Your task to perform on an android device: uninstall "Microsoft Excel" Image 0: 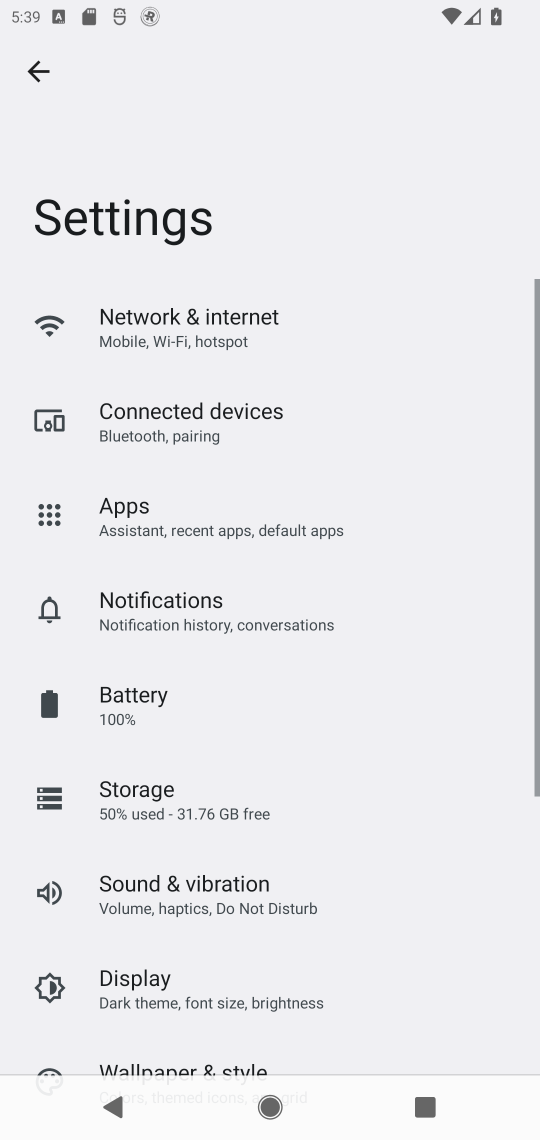
Step 0: press back button
Your task to perform on an android device: uninstall "Microsoft Excel" Image 1: 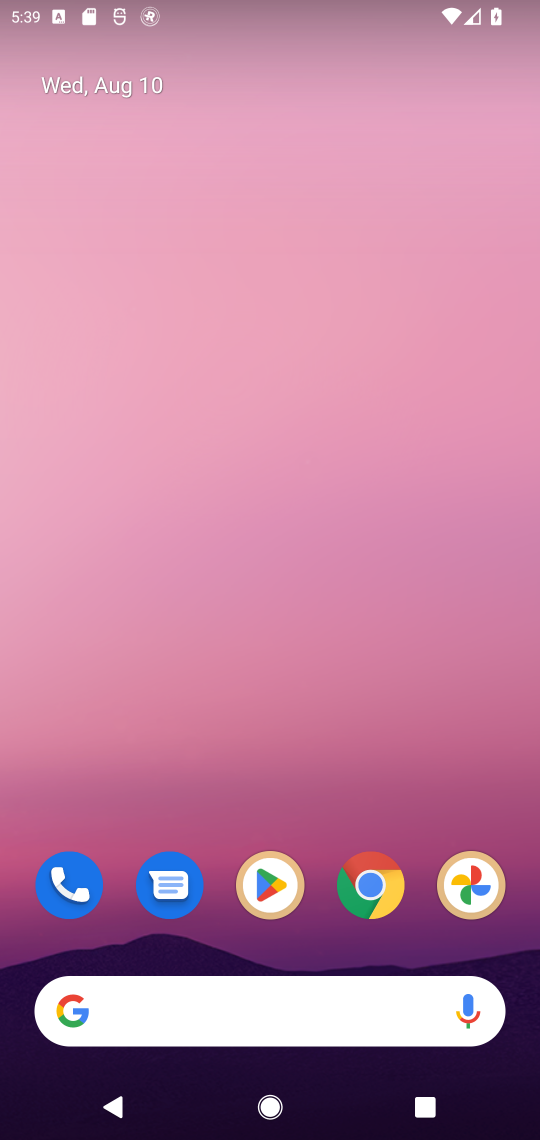
Step 1: click (271, 880)
Your task to perform on an android device: uninstall "Microsoft Excel" Image 2: 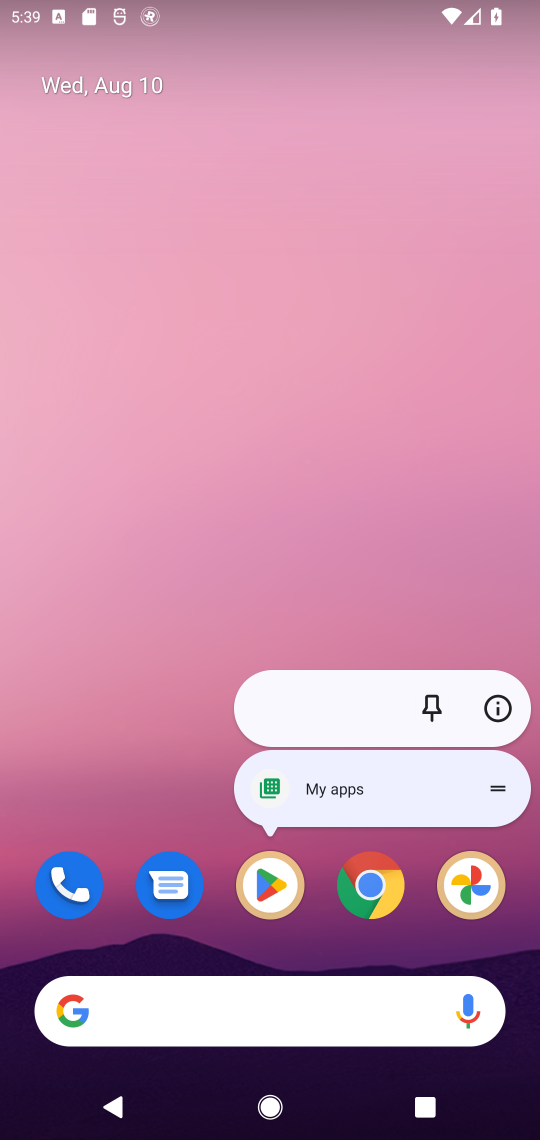
Step 2: click (271, 880)
Your task to perform on an android device: uninstall "Microsoft Excel" Image 3: 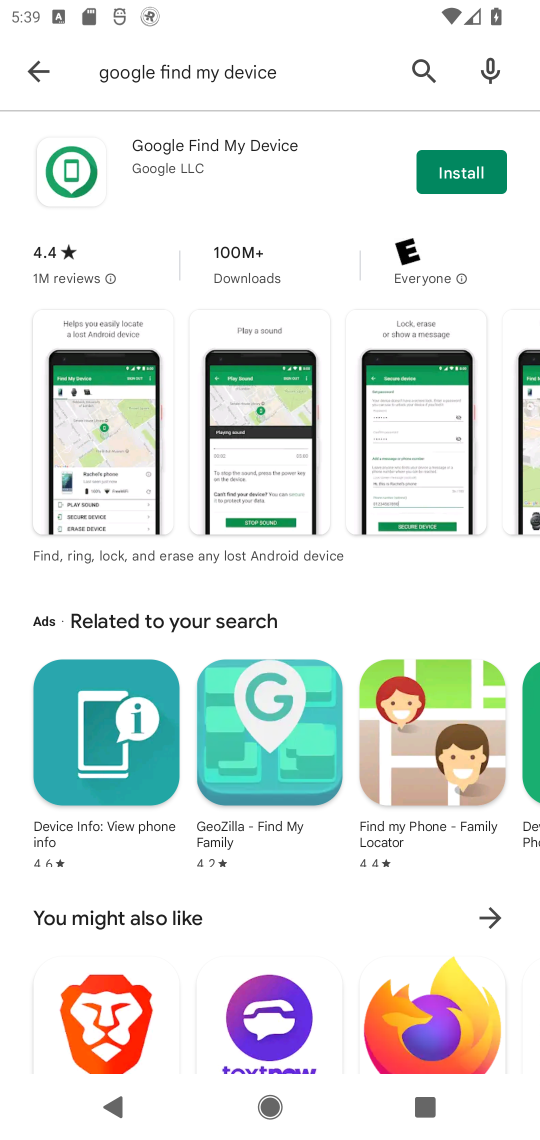
Step 3: click (425, 65)
Your task to perform on an android device: uninstall "Microsoft Excel" Image 4: 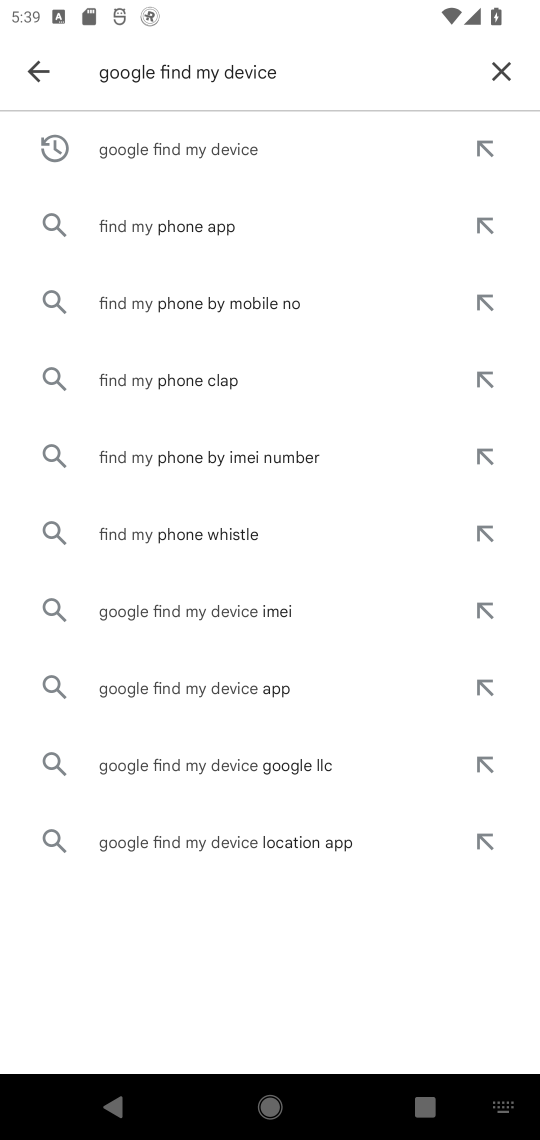
Step 4: click (493, 69)
Your task to perform on an android device: uninstall "Microsoft Excel" Image 5: 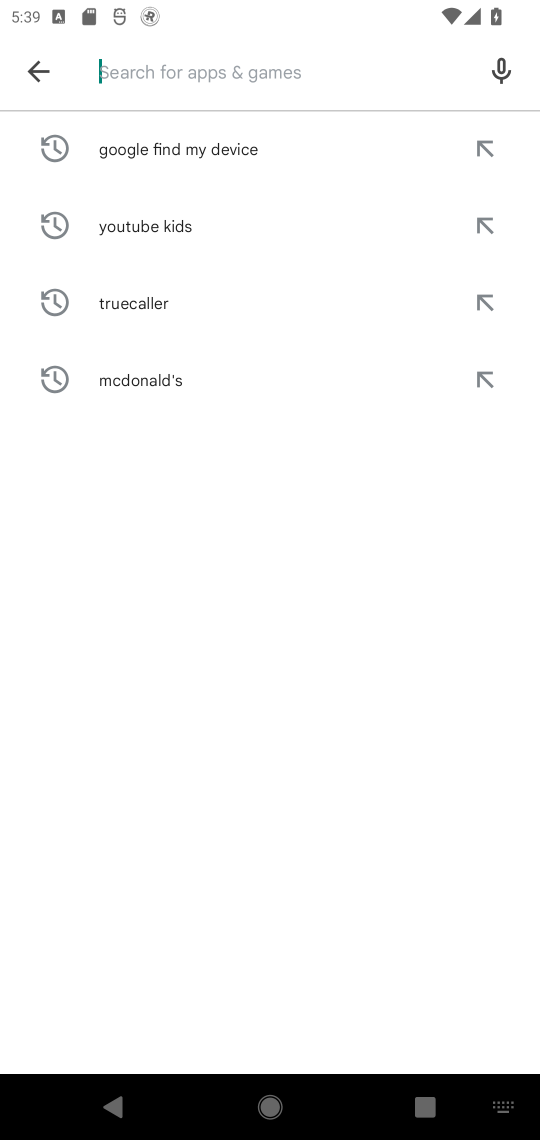
Step 5: click (269, 79)
Your task to perform on an android device: uninstall "Microsoft Excel" Image 6: 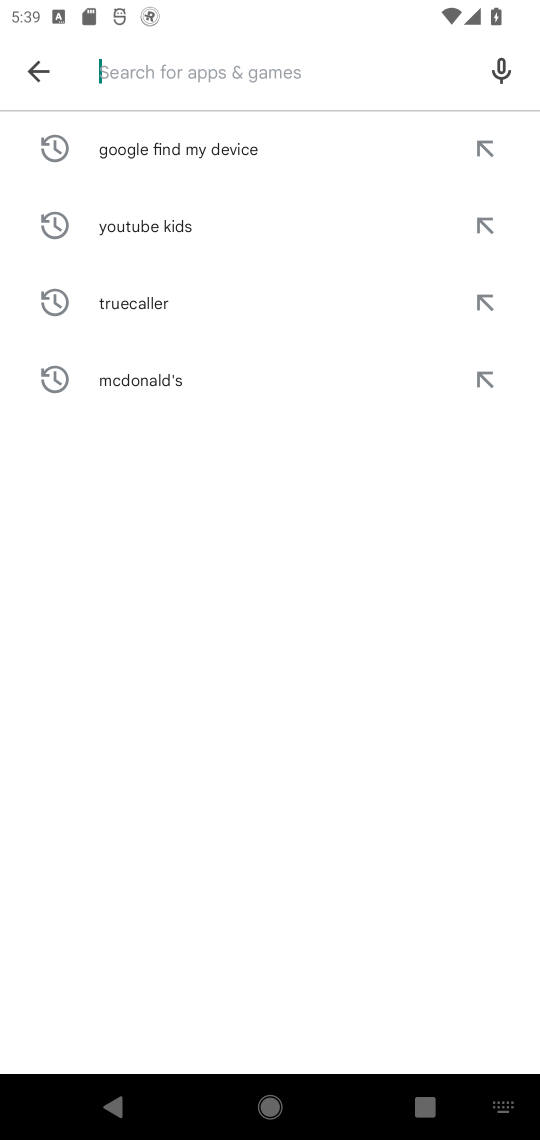
Step 6: click (173, 76)
Your task to perform on an android device: uninstall "Microsoft Excel" Image 7: 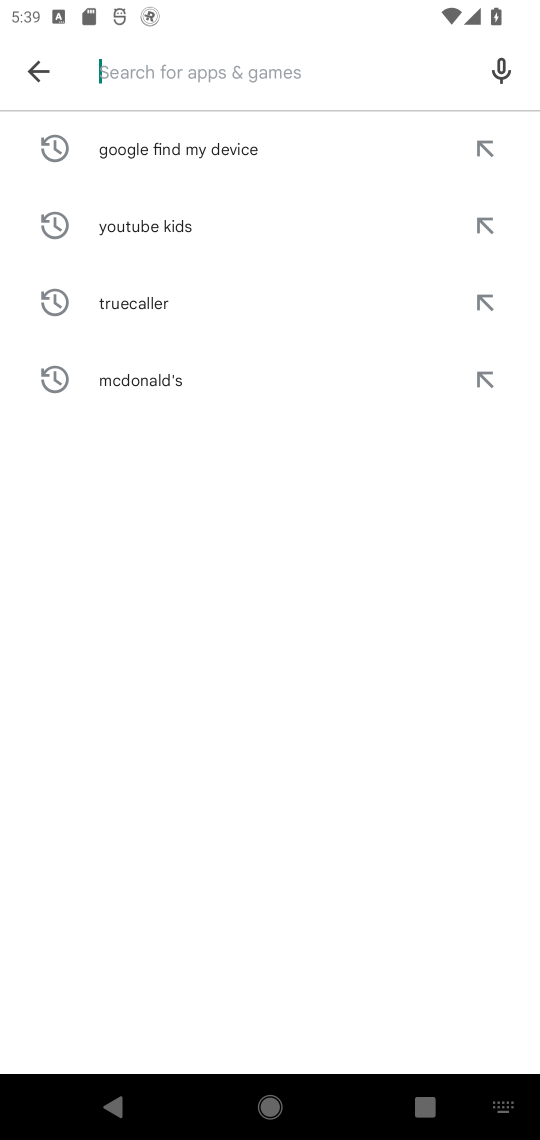
Step 7: type "Microsoft Excel"
Your task to perform on an android device: uninstall "Microsoft Excel" Image 8: 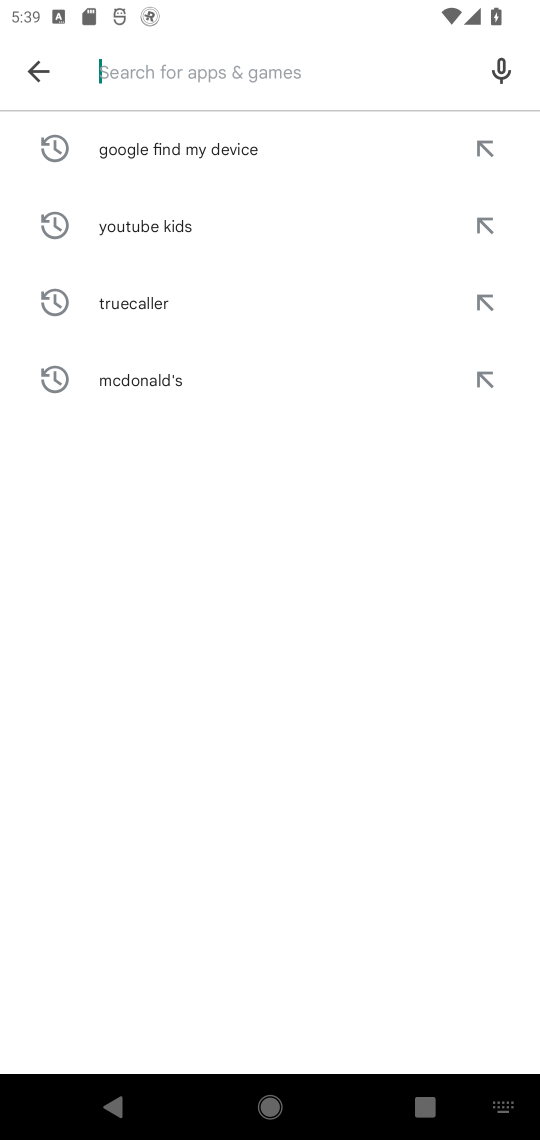
Step 8: click (337, 587)
Your task to perform on an android device: uninstall "Microsoft Excel" Image 9: 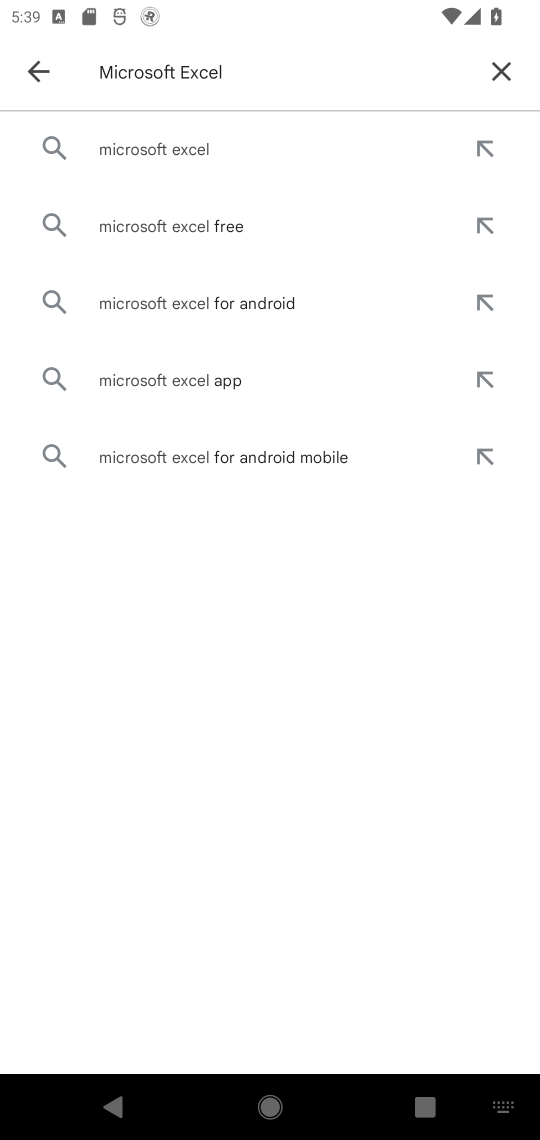
Step 9: click (185, 138)
Your task to perform on an android device: uninstall "Microsoft Excel" Image 10: 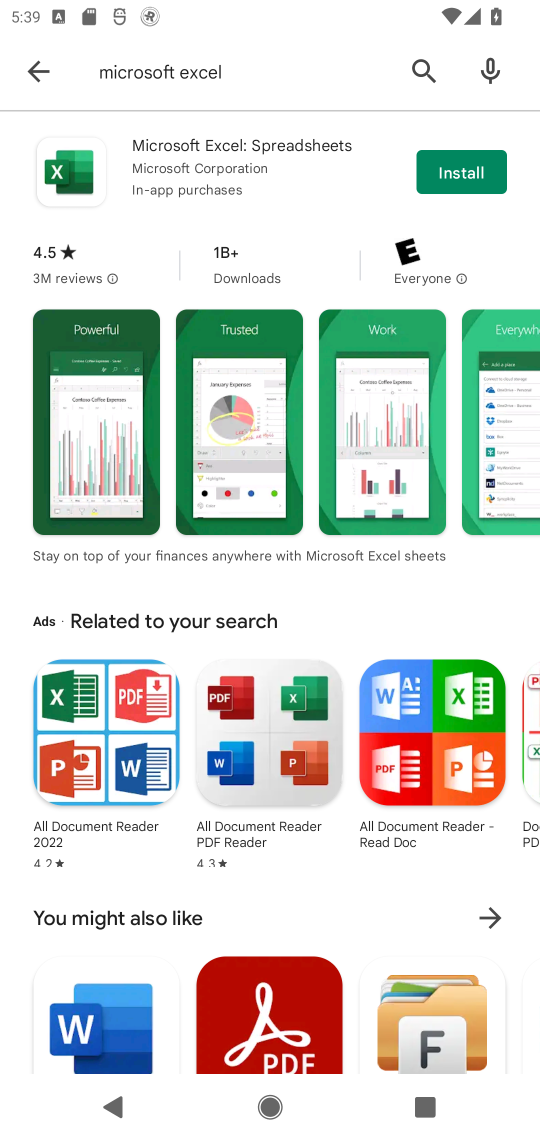
Step 10: task complete